Your task to perform on an android device: turn on showing notifications on the lock screen Image 0: 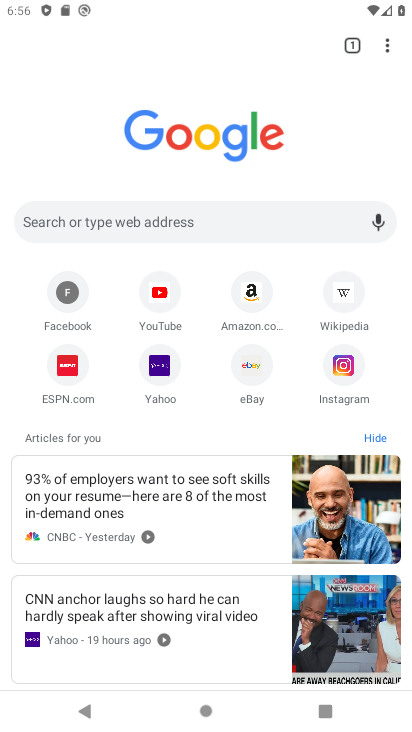
Step 0: press home button
Your task to perform on an android device: turn on showing notifications on the lock screen Image 1: 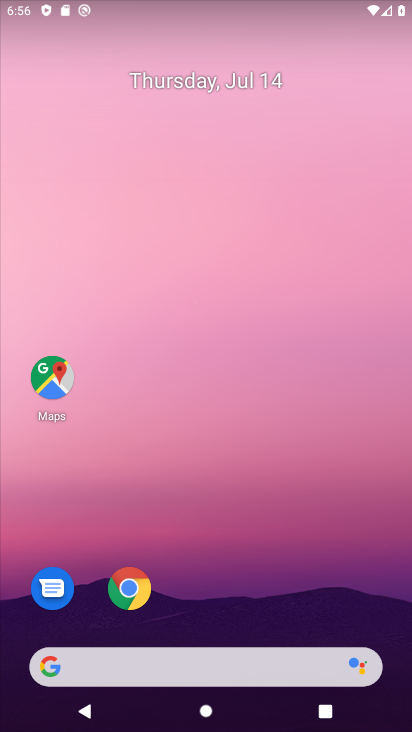
Step 1: drag from (327, 607) to (292, 29)
Your task to perform on an android device: turn on showing notifications on the lock screen Image 2: 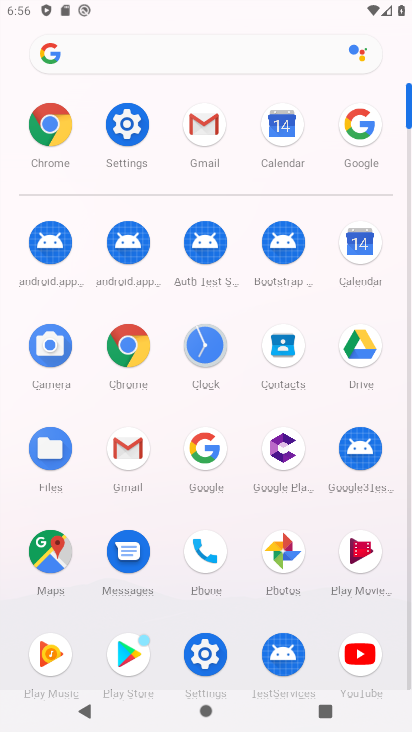
Step 2: click (204, 673)
Your task to perform on an android device: turn on showing notifications on the lock screen Image 3: 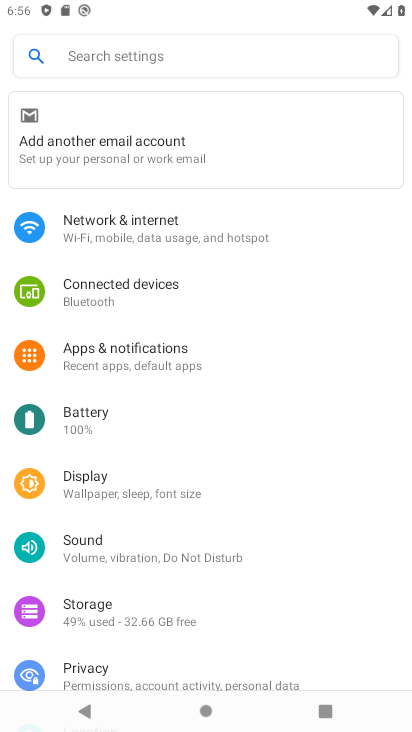
Step 3: click (177, 340)
Your task to perform on an android device: turn on showing notifications on the lock screen Image 4: 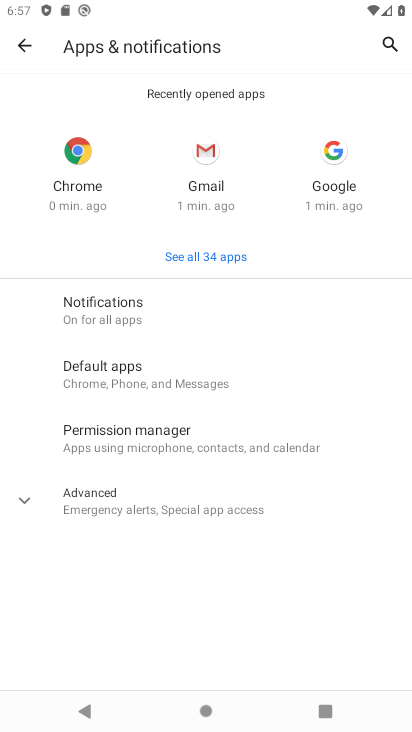
Step 4: click (110, 489)
Your task to perform on an android device: turn on showing notifications on the lock screen Image 5: 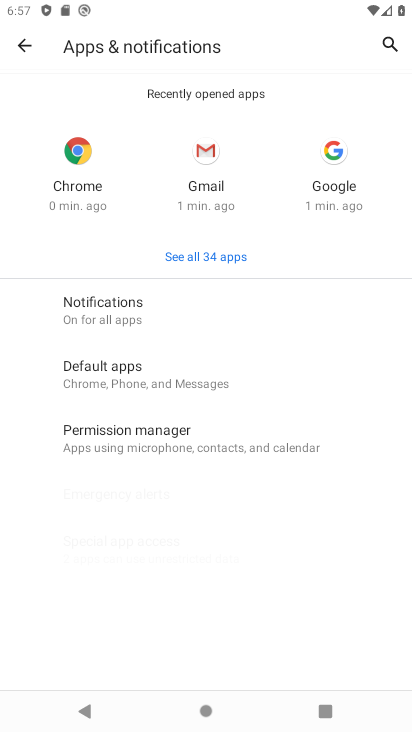
Step 5: click (128, 332)
Your task to perform on an android device: turn on showing notifications on the lock screen Image 6: 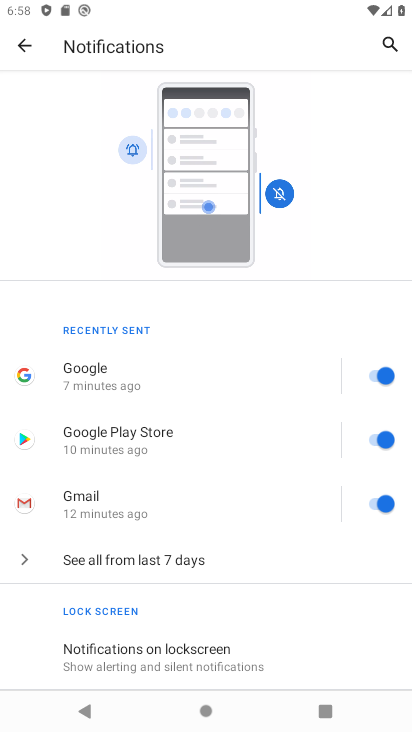
Step 6: click (174, 651)
Your task to perform on an android device: turn on showing notifications on the lock screen Image 7: 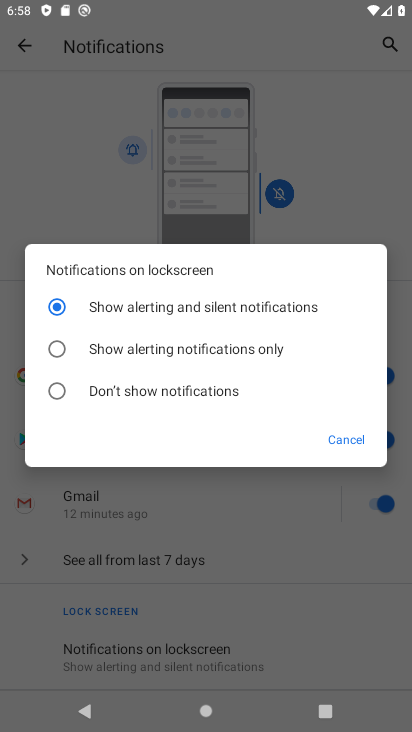
Step 7: task complete